Your task to perform on an android device: Turn off the flashlight Image 0: 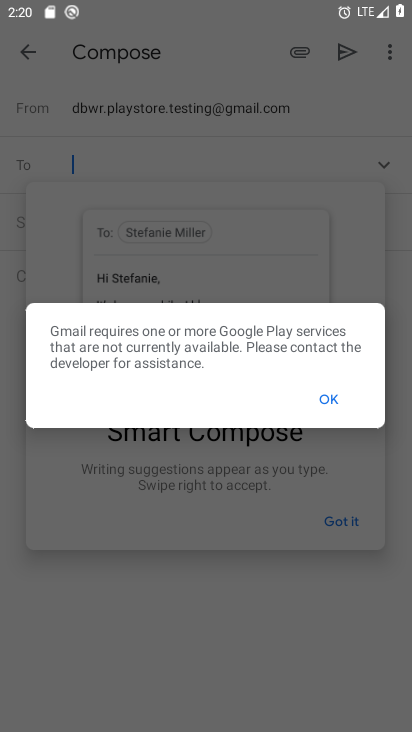
Step 0: press home button
Your task to perform on an android device: Turn off the flashlight Image 1: 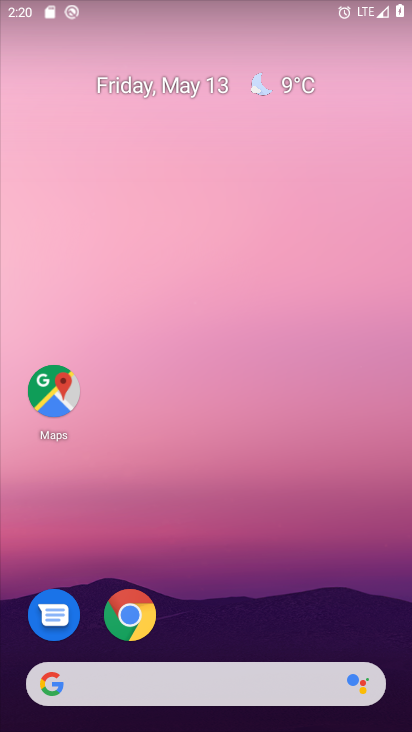
Step 1: drag from (260, 549) to (321, 48)
Your task to perform on an android device: Turn off the flashlight Image 2: 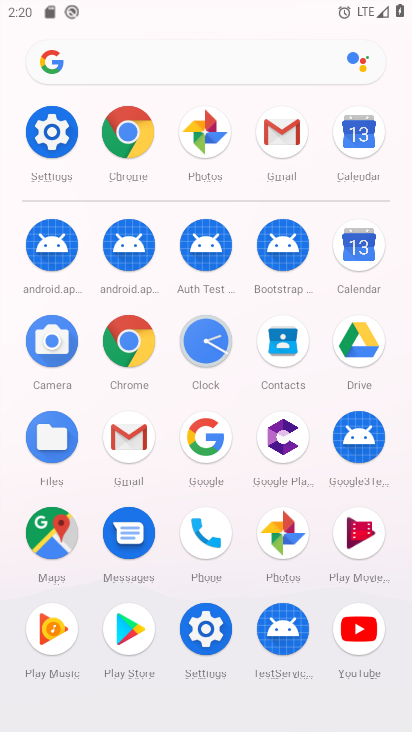
Step 2: click (50, 132)
Your task to perform on an android device: Turn off the flashlight Image 3: 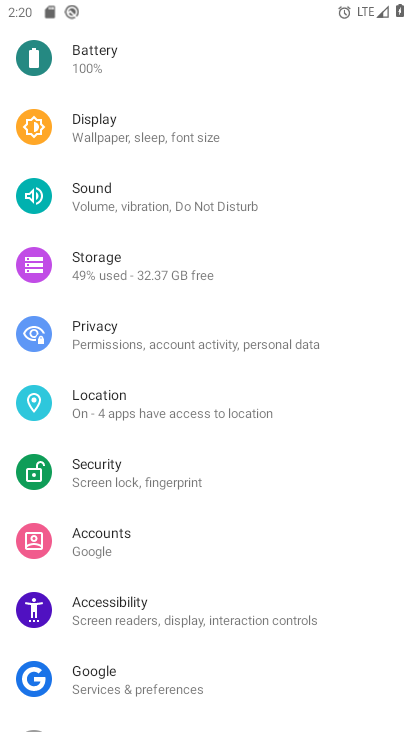
Step 3: drag from (184, 343) to (140, 602)
Your task to perform on an android device: Turn off the flashlight Image 4: 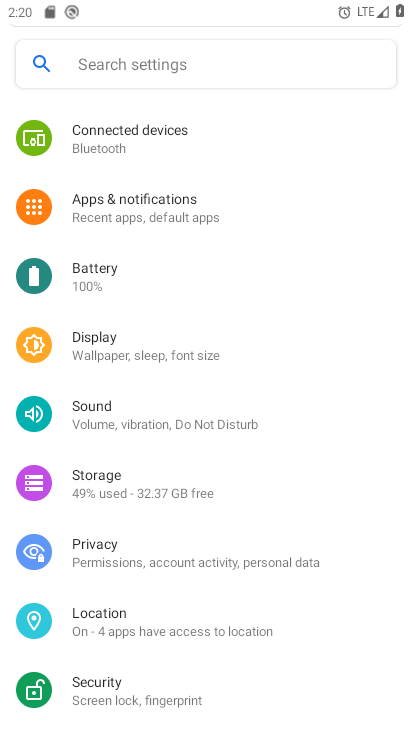
Step 4: drag from (215, 315) to (202, 639)
Your task to perform on an android device: Turn off the flashlight Image 5: 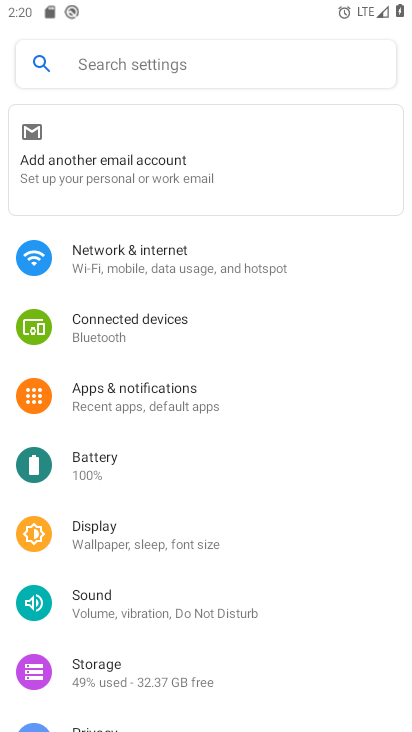
Step 5: click (294, 69)
Your task to perform on an android device: Turn off the flashlight Image 6: 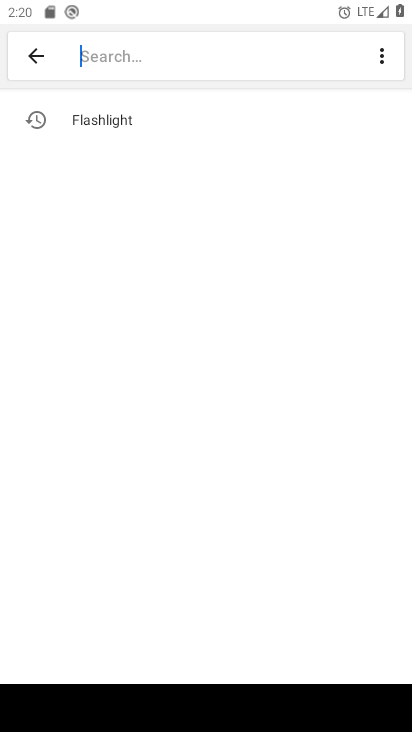
Step 6: click (120, 118)
Your task to perform on an android device: Turn off the flashlight Image 7: 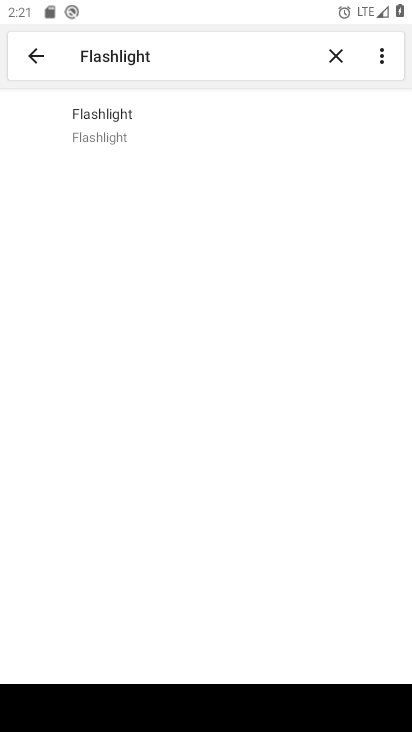
Step 7: click (102, 123)
Your task to perform on an android device: Turn off the flashlight Image 8: 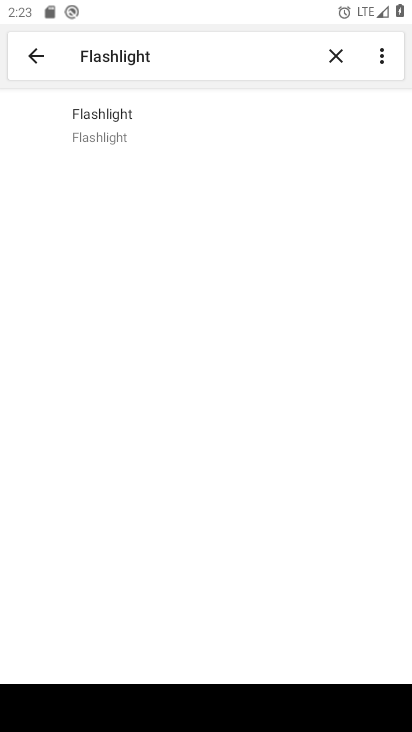
Step 8: task complete